Your task to perform on an android device: Open sound settings Image 0: 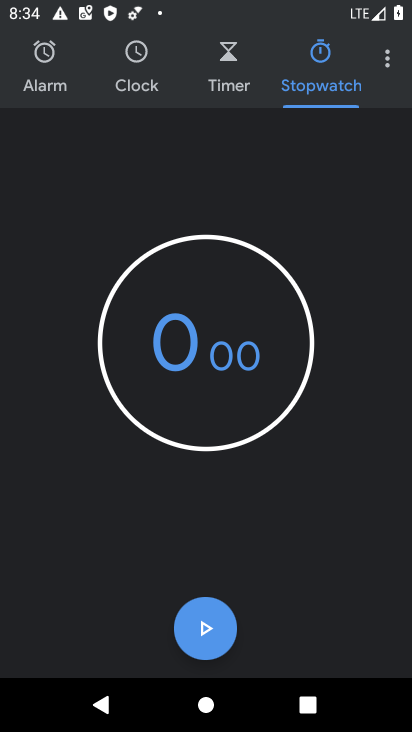
Step 0: press home button
Your task to perform on an android device: Open sound settings Image 1: 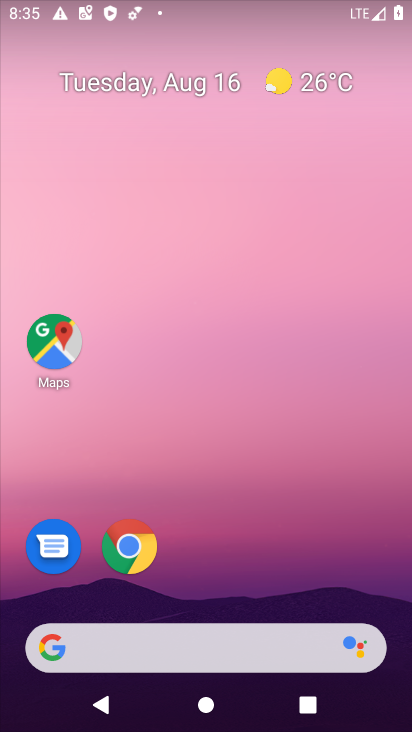
Step 1: drag from (223, 532) to (172, 12)
Your task to perform on an android device: Open sound settings Image 2: 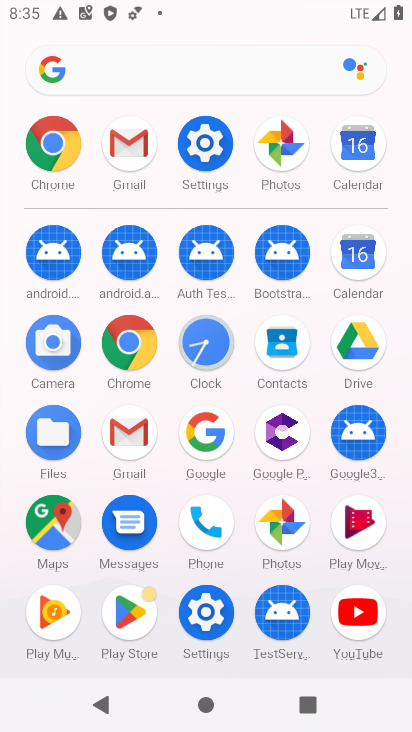
Step 2: click (202, 135)
Your task to perform on an android device: Open sound settings Image 3: 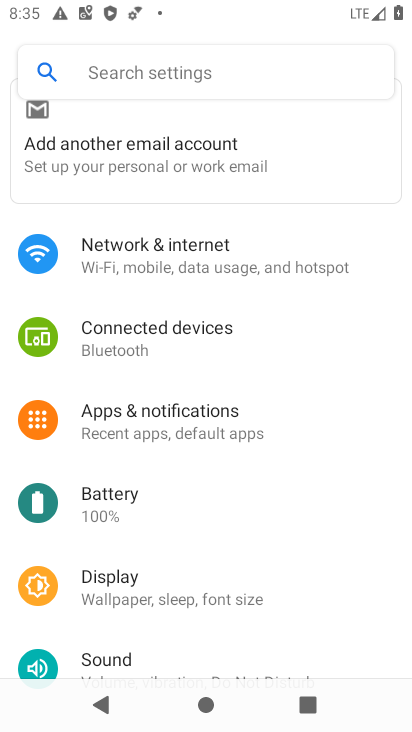
Step 3: drag from (195, 544) to (214, 272)
Your task to perform on an android device: Open sound settings Image 4: 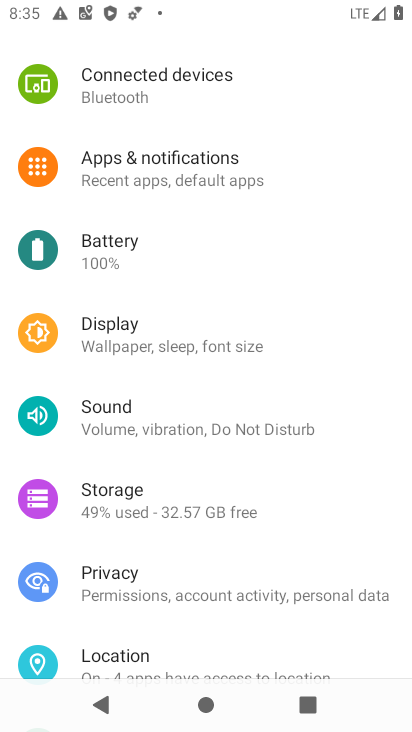
Step 4: click (216, 431)
Your task to perform on an android device: Open sound settings Image 5: 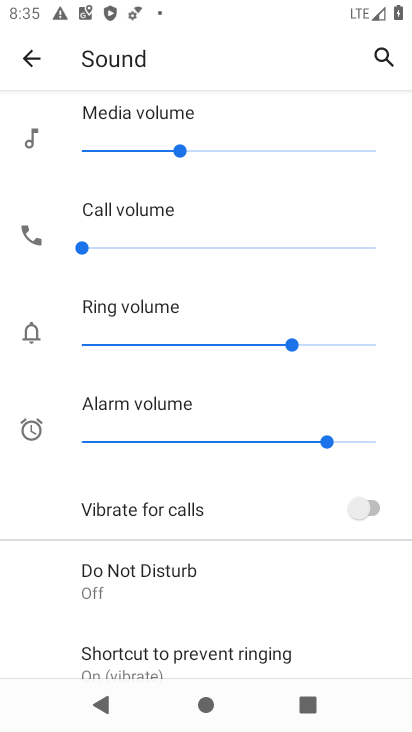
Step 5: task complete